Your task to perform on an android device: Open the phone app and click the voicemail tab. Image 0: 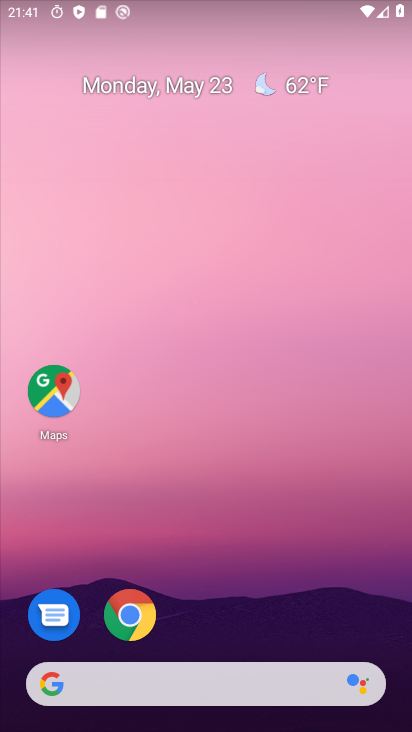
Step 0: drag from (224, 607) to (229, 53)
Your task to perform on an android device: Open the phone app and click the voicemail tab. Image 1: 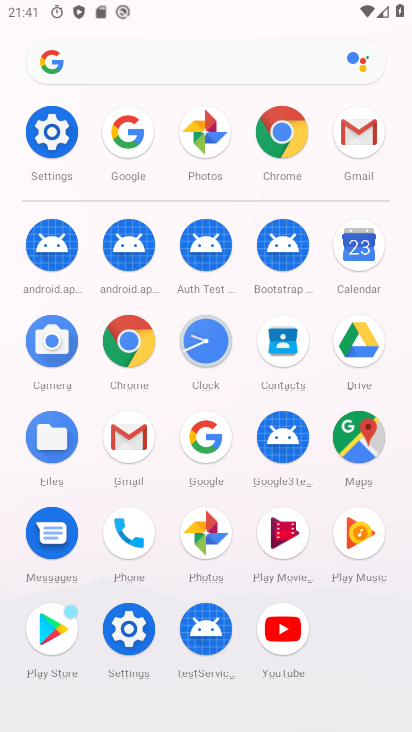
Step 1: click (131, 544)
Your task to perform on an android device: Open the phone app and click the voicemail tab. Image 2: 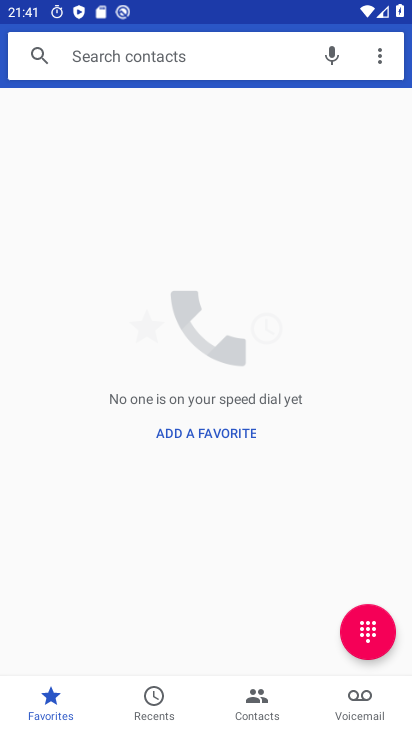
Step 2: click (357, 698)
Your task to perform on an android device: Open the phone app and click the voicemail tab. Image 3: 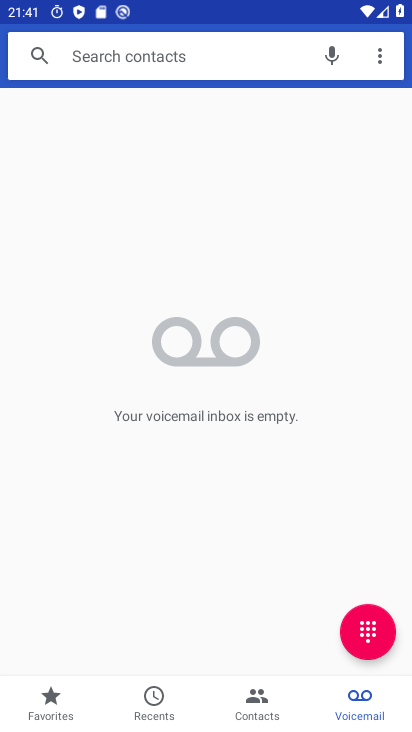
Step 3: task complete